Your task to perform on an android device: Show me recent news Image 0: 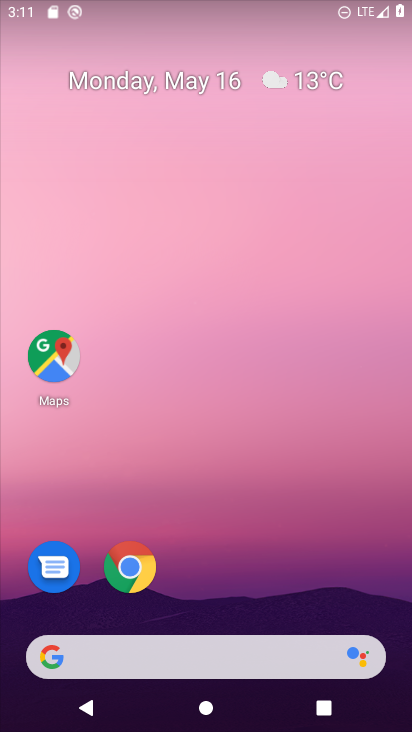
Step 0: drag from (19, 266) to (411, 384)
Your task to perform on an android device: Show me recent news Image 1: 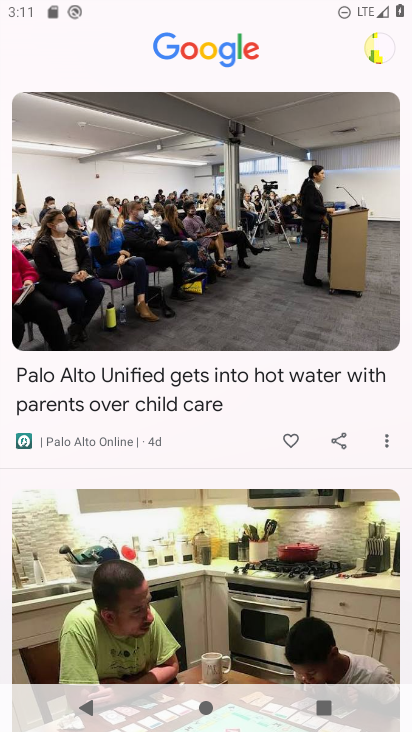
Step 1: task complete